Your task to perform on an android device: Search for pizza restaurants on Maps Image 0: 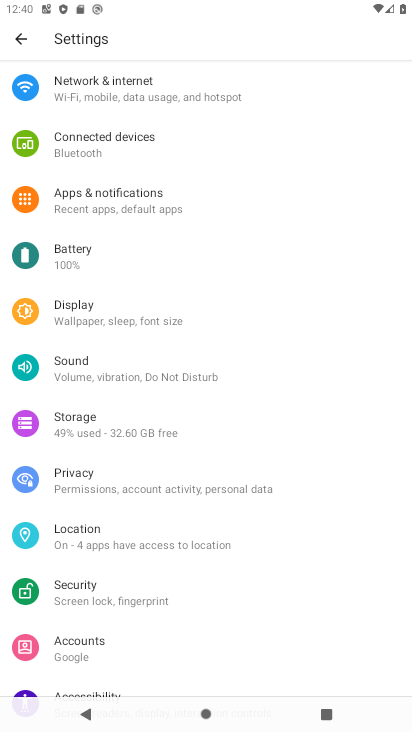
Step 0: press back button
Your task to perform on an android device: Search for pizza restaurants on Maps Image 1: 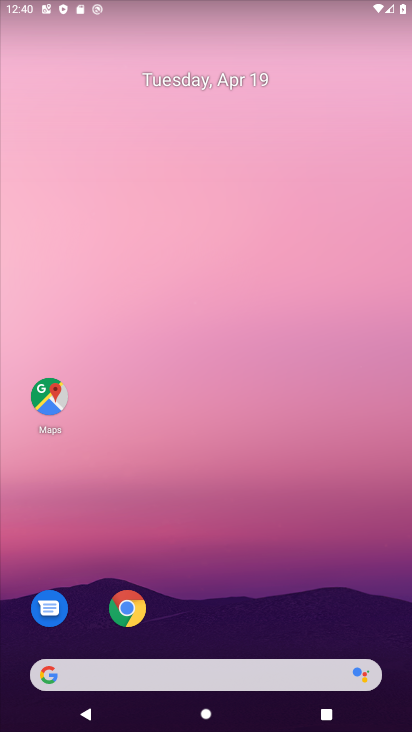
Step 1: drag from (167, 628) to (288, 121)
Your task to perform on an android device: Search for pizza restaurants on Maps Image 2: 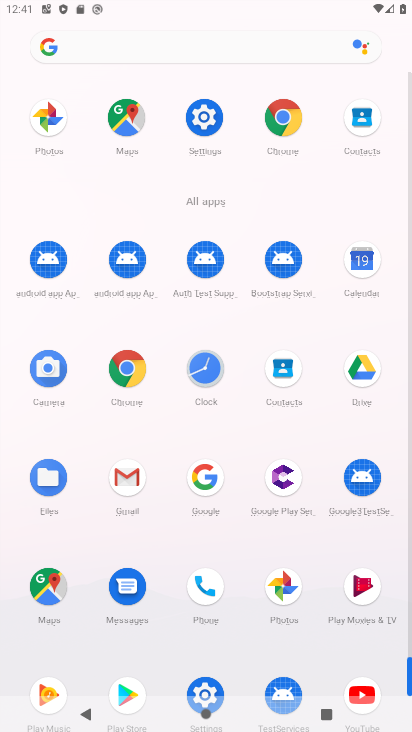
Step 2: click (51, 598)
Your task to perform on an android device: Search for pizza restaurants on Maps Image 3: 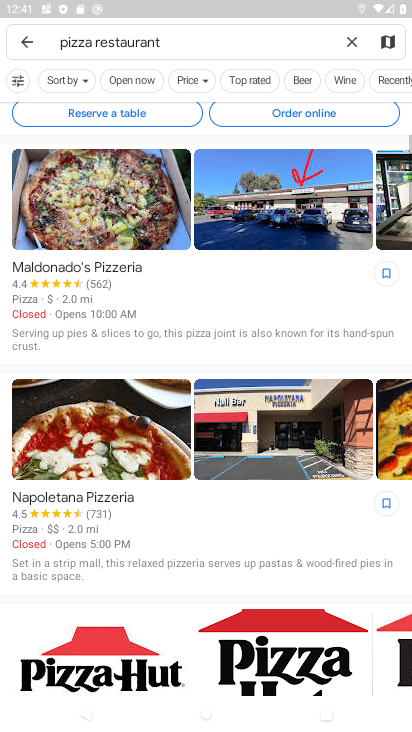
Step 3: task complete